Your task to perform on an android device: Show me popular games on the Play Store Image 0: 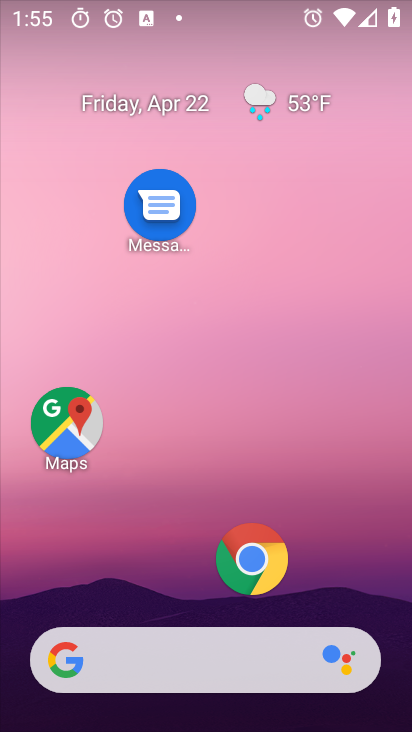
Step 0: drag from (199, 615) to (321, 147)
Your task to perform on an android device: Show me popular games on the Play Store Image 1: 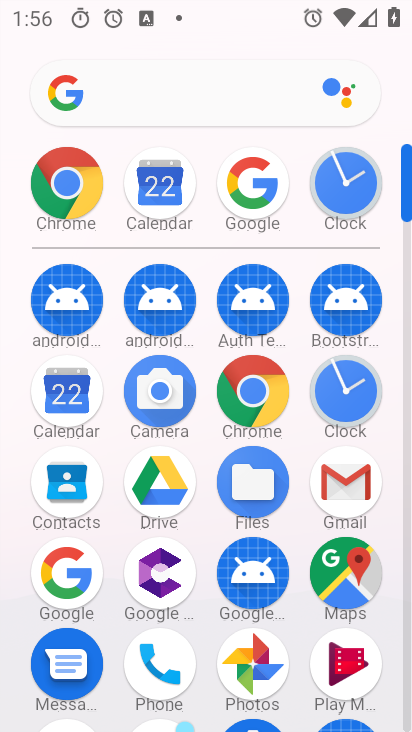
Step 1: drag from (201, 526) to (201, 148)
Your task to perform on an android device: Show me popular games on the Play Store Image 2: 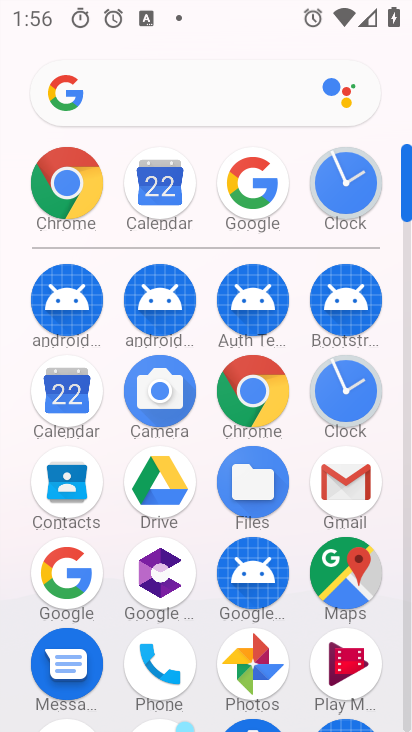
Step 2: click (6, 176)
Your task to perform on an android device: Show me popular games on the Play Store Image 3: 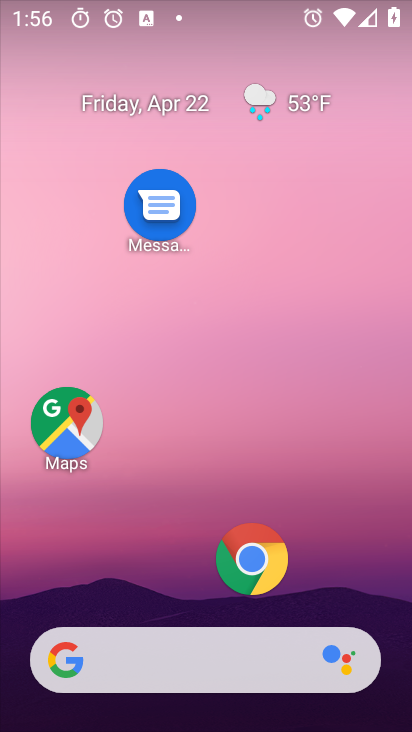
Step 3: drag from (178, 578) to (212, 92)
Your task to perform on an android device: Show me popular games on the Play Store Image 4: 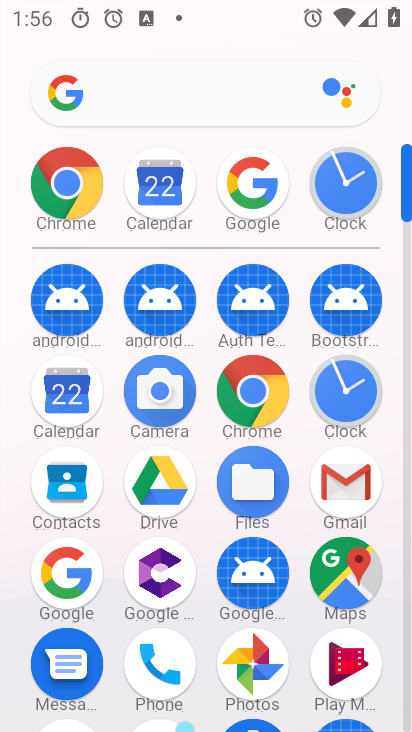
Step 4: click (402, 518)
Your task to perform on an android device: Show me popular games on the Play Store Image 5: 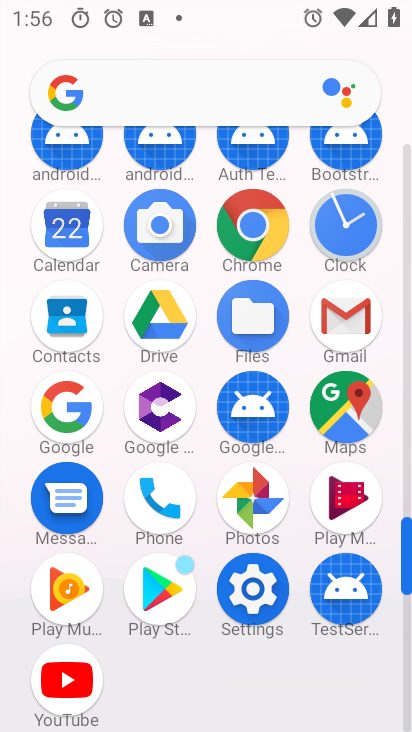
Step 5: click (175, 586)
Your task to perform on an android device: Show me popular games on the Play Store Image 6: 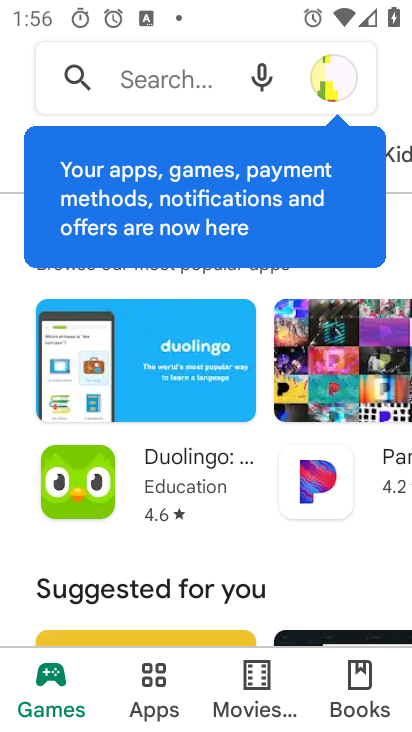
Step 6: click (170, 62)
Your task to perform on an android device: Show me popular games on the Play Store Image 7: 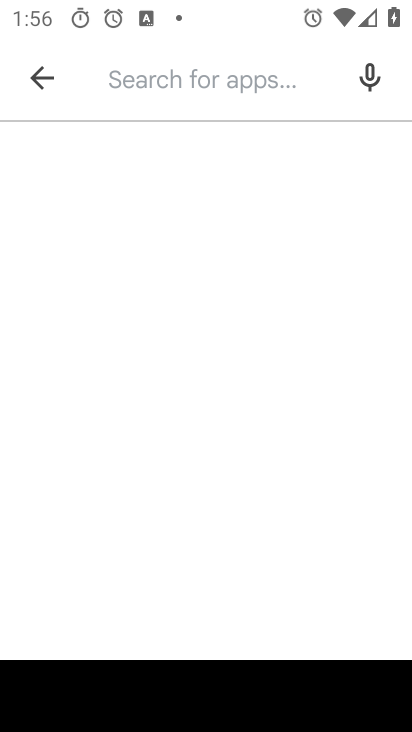
Step 7: type "popular games"
Your task to perform on an android device: Show me popular games on the Play Store Image 8: 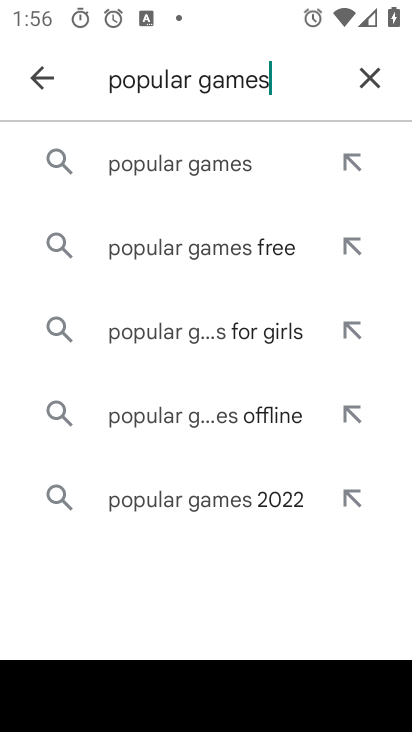
Step 8: click (216, 157)
Your task to perform on an android device: Show me popular games on the Play Store Image 9: 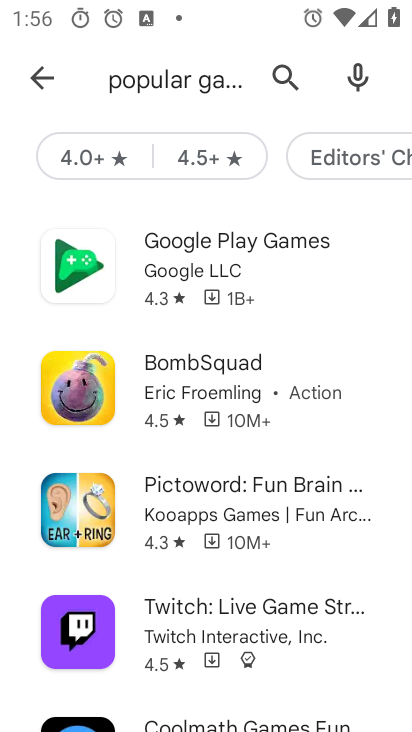
Step 9: task complete